Your task to perform on an android device: Go to Google maps Image 0: 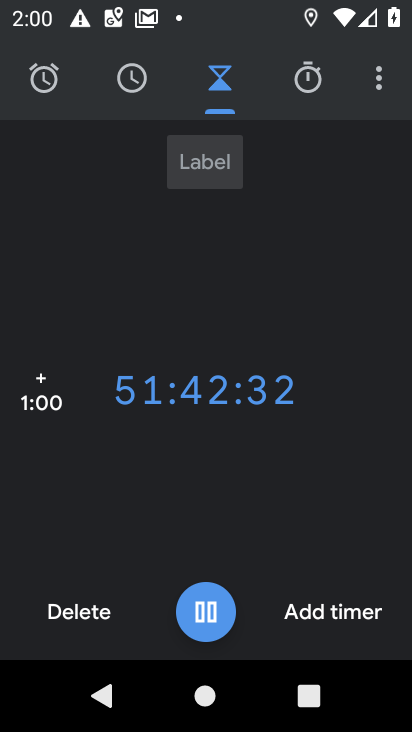
Step 0: press home button
Your task to perform on an android device: Go to Google maps Image 1: 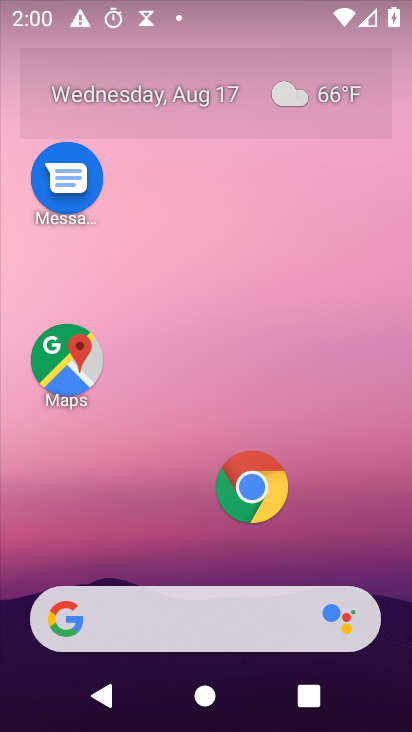
Step 1: click (82, 368)
Your task to perform on an android device: Go to Google maps Image 2: 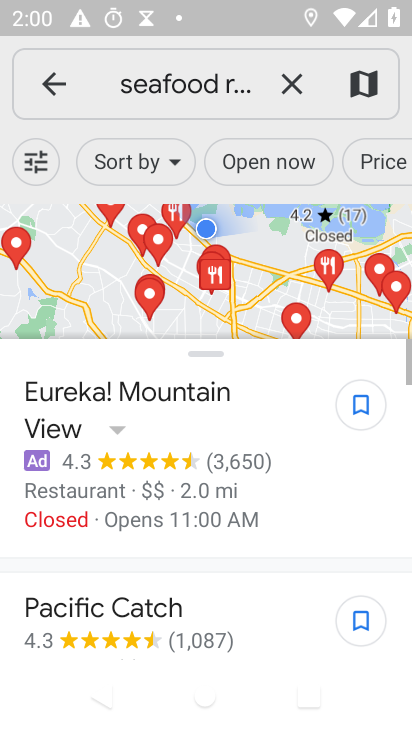
Step 2: click (285, 91)
Your task to perform on an android device: Go to Google maps Image 3: 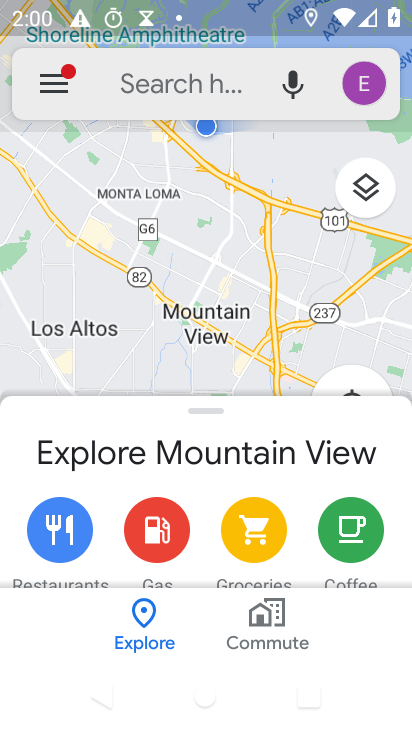
Step 3: task complete